Your task to perform on an android device: Open the calendar and show me this week's events? Image 0: 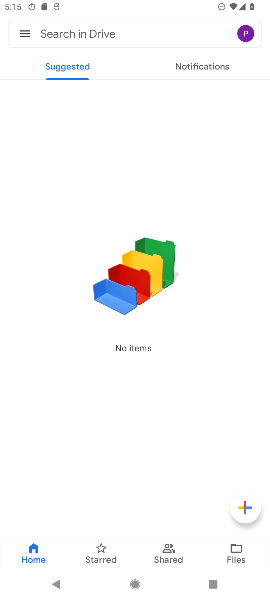
Step 0: press back button
Your task to perform on an android device: Open the calendar and show me this week's events? Image 1: 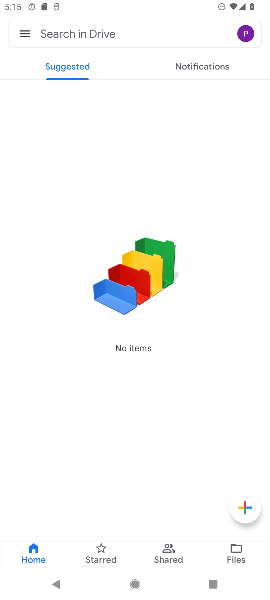
Step 1: press back button
Your task to perform on an android device: Open the calendar and show me this week's events? Image 2: 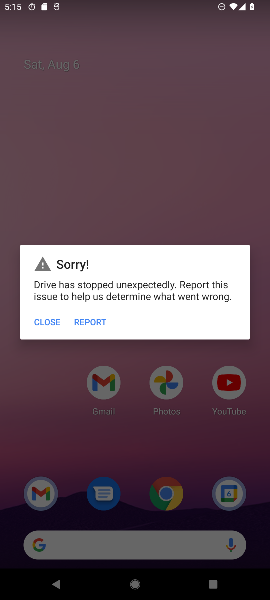
Step 2: press back button
Your task to perform on an android device: Open the calendar and show me this week's events? Image 3: 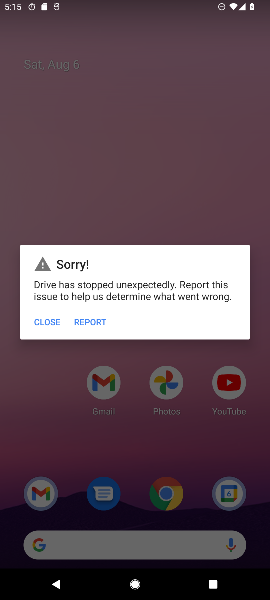
Step 3: click (98, 207)
Your task to perform on an android device: Open the calendar and show me this week's events? Image 4: 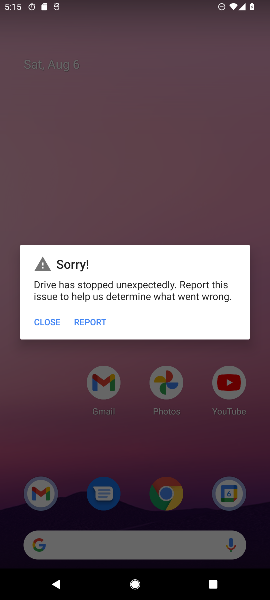
Step 4: click (44, 320)
Your task to perform on an android device: Open the calendar and show me this week's events? Image 5: 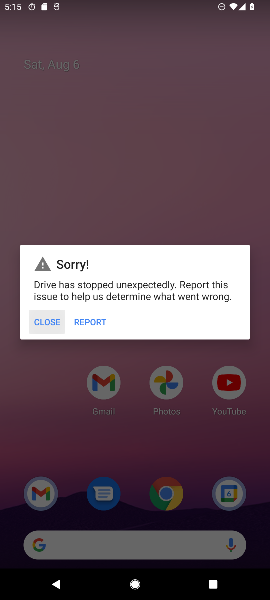
Step 5: click (44, 320)
Your task to perform on an android device: Open the calendar and show me this week's events? Image 6: 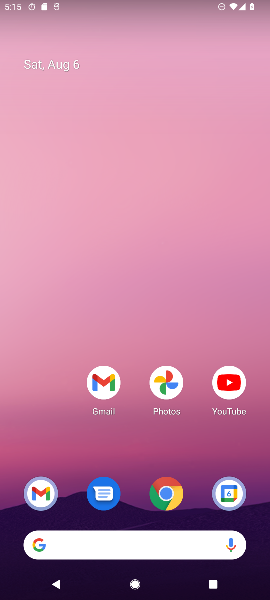
Step 6: click (151, 116)
Your task to perform on an android device: Open the calendar and show me this week's events? Image 7: 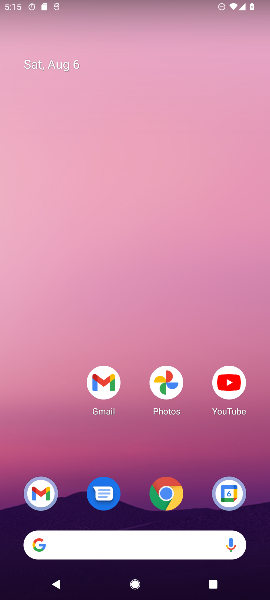
Step 7: drag from (146, 551) to (99, 93)
Your task to perform on an android device: Open the calendar and show me this week's events? Image 8: 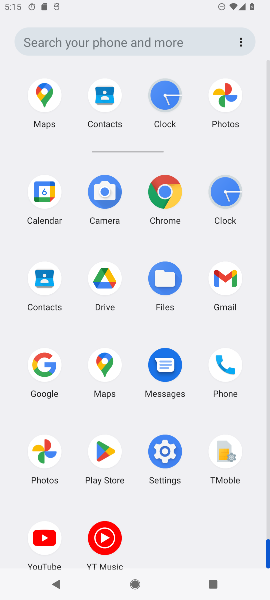
Step 8: click (103, 81)
Your task to perform on an android device: Open the calendar and show me this week's events? Image 9: 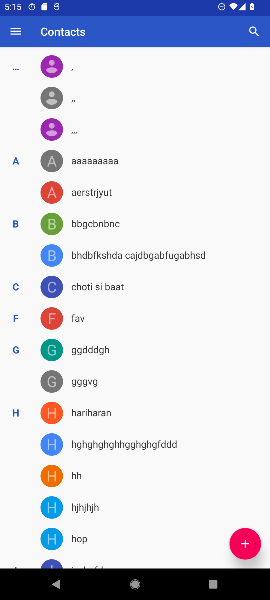
Step 9: press back button
Your task to perform on an android device: Open the calendar and show me this week's events? Image 10: 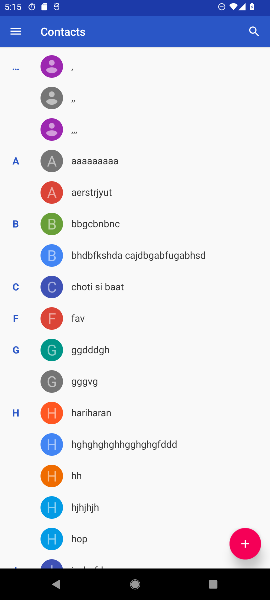
Step 10: press back button
Your task to perform on an android device: Open the calendar and show me this week's events? Image 11: 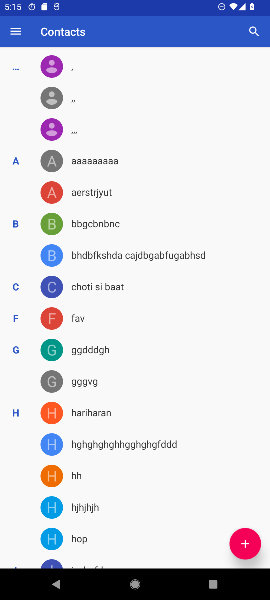
Step 11: press back button
Your task to perform on an android device: Open the calendar and show me this week's events? Image 12: 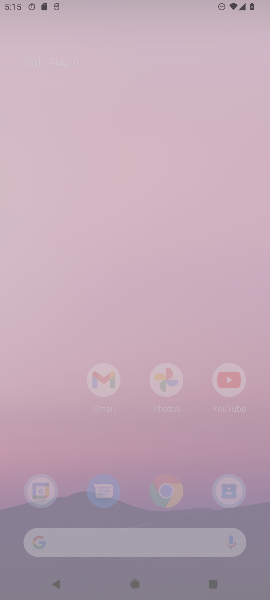
Step 12: press back button
Your task to perform on an android device: Open the calendar and show me this week's events? Image 13: 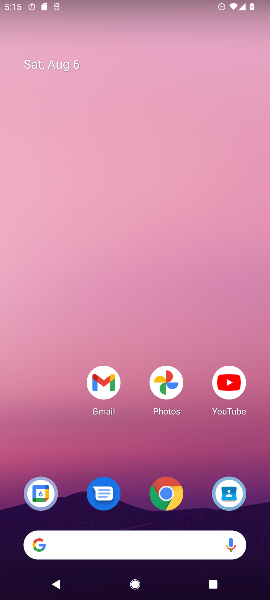
Step 13: press back button
Your task to perform on an android device: Open the calendar and show me this week's events? Image 14: 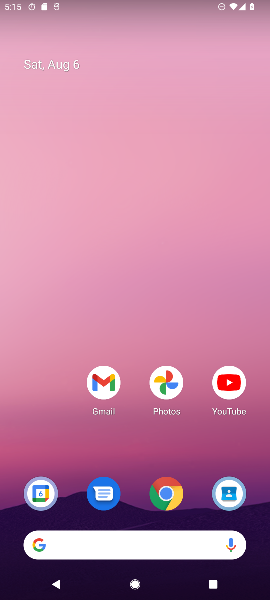
Step 14: press back button
Your task to perform on an android device: Open the calendar and show me this week's events? Image 15: 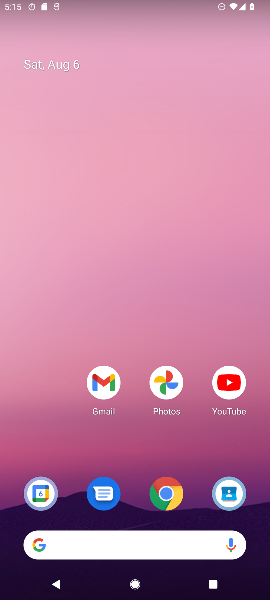
Step 15: drag from (164, 470) to (94, 46)
Your task to perform on an android device: Open the calendar and show me this week's events? Image 16: 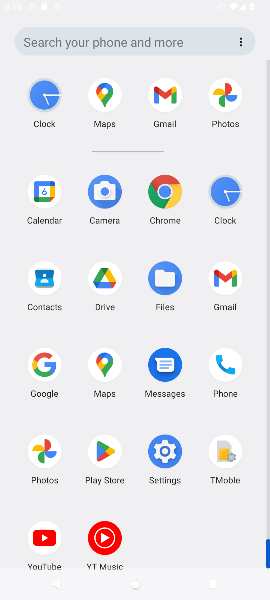
Step 16: drag from (172, 387) to (186, 124)
Your task to perform on an android device: Open the calendar and show me this week's events? Image 17: 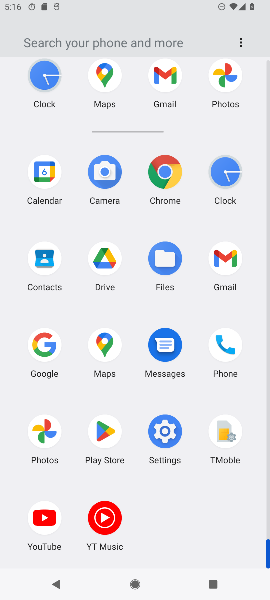
Step 17: click (49, 170)
Your task to perform on an android device: Open the calendar and show me this week's events? Image 18: 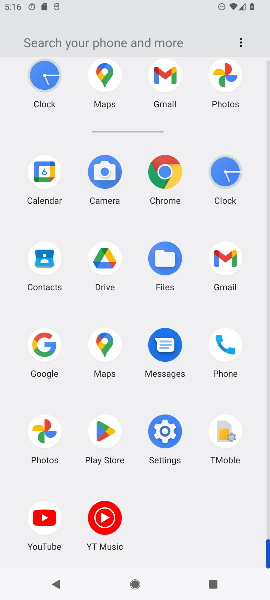
Step 18: click (49, 170)
Your task to perform on an android device: Open the calendar and show me this week's events? Image 19: 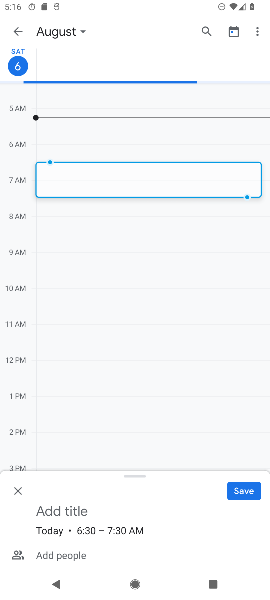
Step 19: click (48, 170)
Your task to perform on an android device: Open the calendar and show me this week's events? Image 20: 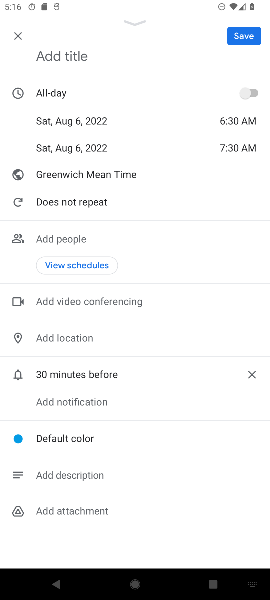
Step 20: click (15, 32)
Your task to perform on an android device: Open the calendar and show me this week's events? Image 21: 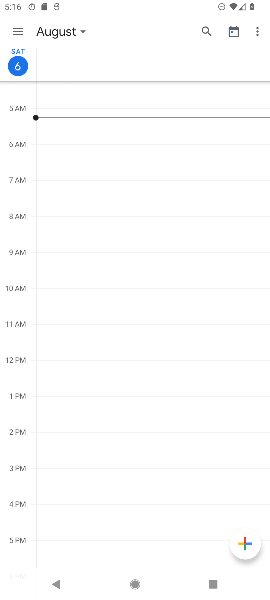
Step 21: click (83, 33)
Your task to perform on an android device: Open the calendar and show me this week's events? Image 22: 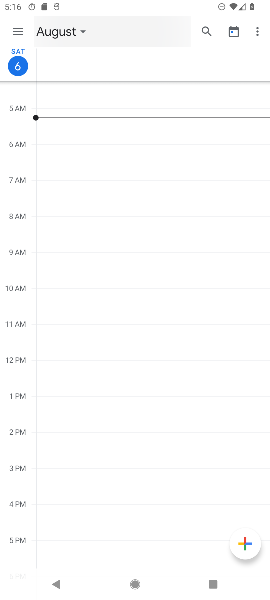
Step 22: click (82, 31)
Your task to perform on an android device: Open the calendar and show me this week's events? Image 23: 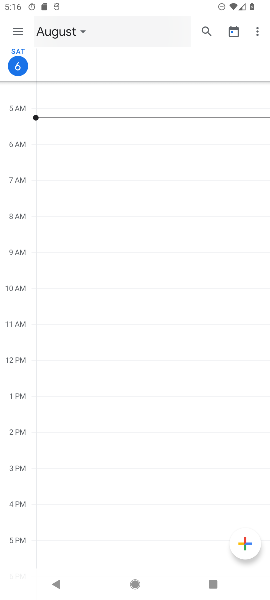
Step 23: click (82, 31)
Your task to perform on an android device: Open the calendar and show me this week's events? Image 24: 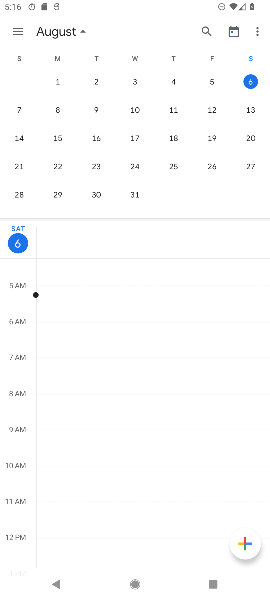
Step 24: click (66, 104)
Your task to perform on an android device: Open the calendar and show me this week's events? Image 25: 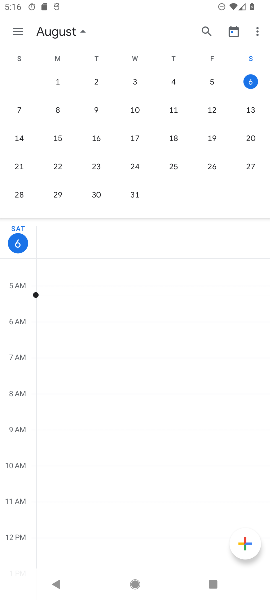
Step 25: click (59, 107)
Your task to perform on an android device: Open the calendar and show me this week's events? Image 26: 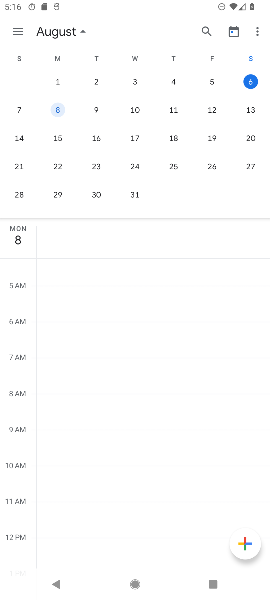
Step 26: click (59, 107)
Your task to perform on an android device: Open the calendar and show me this week's events? Image 27: 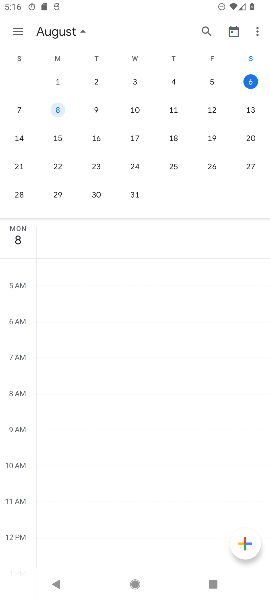
Step 27: click (57, 110)
Your task to perform on an android device: Open the calendar and show me this week's events? Image 28: 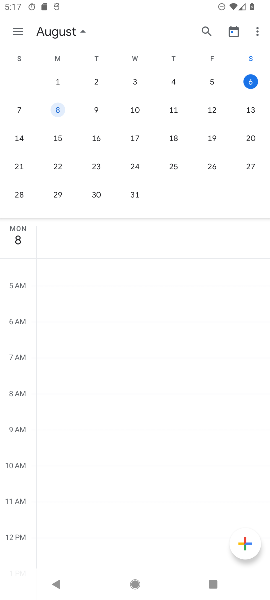
Step 28: click (97, 109)
Your task to perform on an android device: Open the calendar and show me this week's events? Image 29: 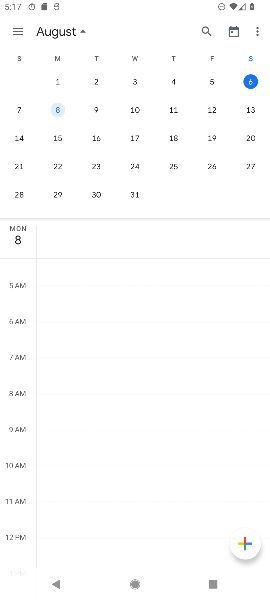
Step 29: click (97, 109)
Your task to perform on an android device: Open the calendar and show me this week's events? Image 30: 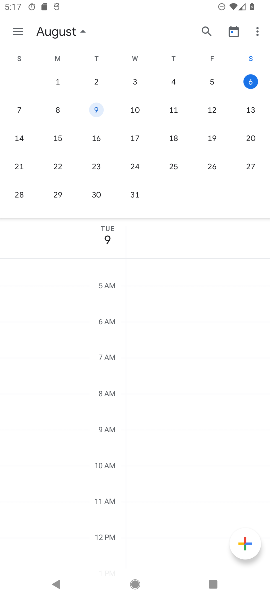
Step 30: click (97, 109)
Your task to perform on an android device: Open the calendar and show me this week's events? Image 31: 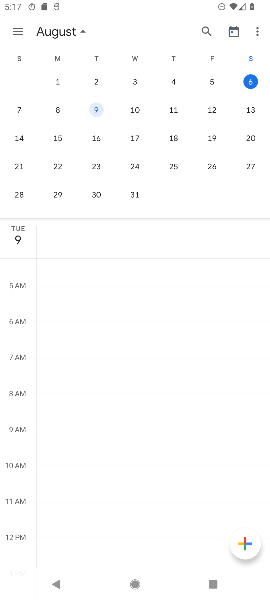
Step 31: click (101, 109)
Your task to perform on an android device: Open the calendar and show me this week's events? Image 32: 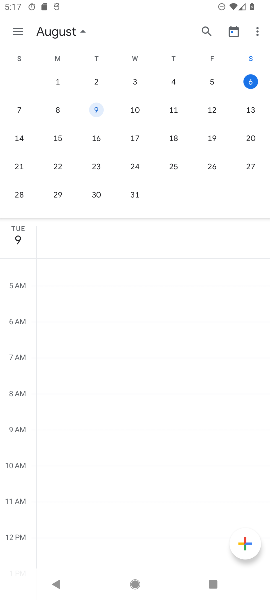
Step 32: click (103, 110)
Your task to perform on an android device: Open the calendar and show me this week's events? Image 33: 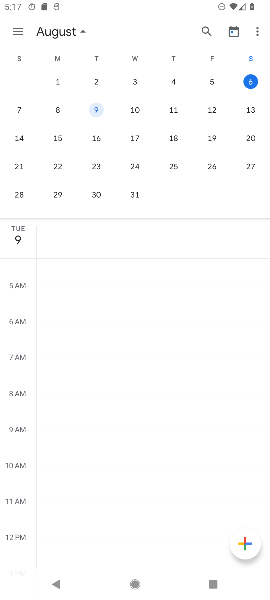
Step 33: task complete